Your task to perform on an android device: Open settings on Google Maps Image 0: 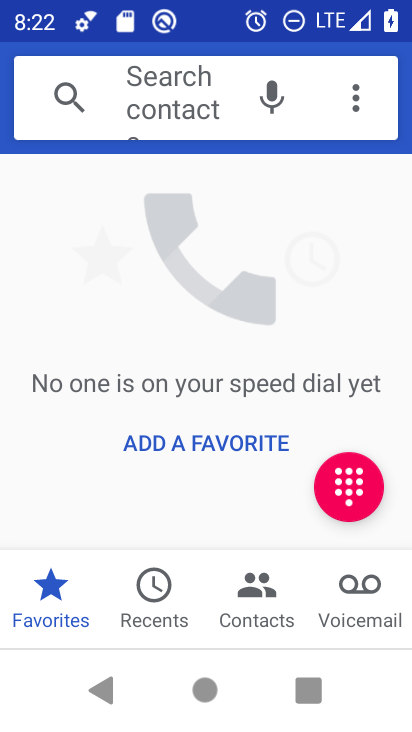
Step 0: press home button
Your task to perform on an android device: Open settings on Google Maps Image 1: 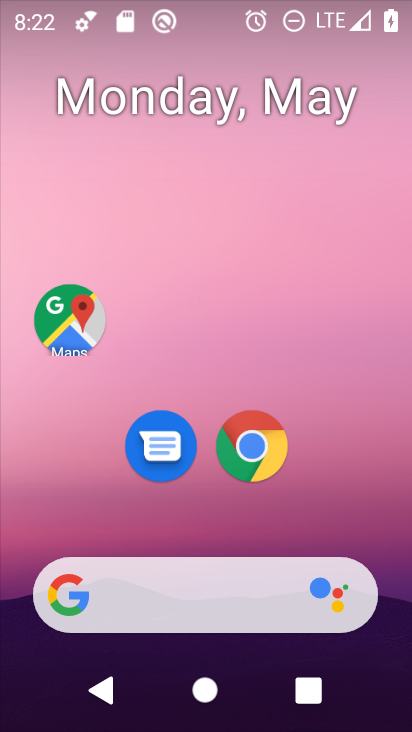
Step 1: click (71, 300)
Your task to perform on an android device: Open settings on Google Maps Image 2: 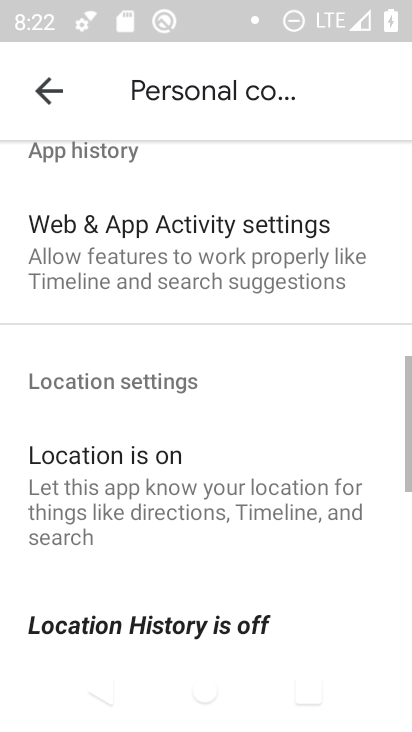
Step 2: click (34, 84)
Your task to perform on an android device: Open settings on Google Maps Image 3: 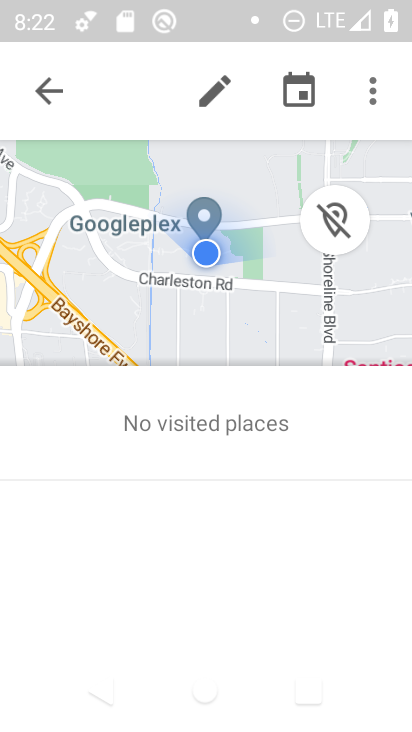
Step 3: click (54, 78)
Your task to perform on an android device: Open settings on Google Maps Image 4: 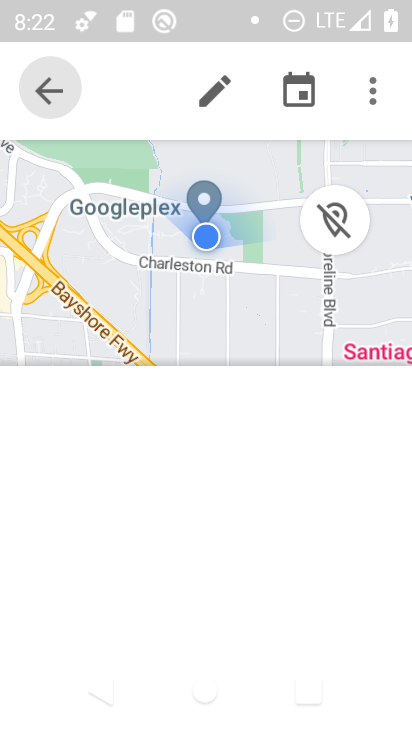
Step 4: click (45, 96)
Your task to perform on an android device: Open settings on Google Maps Image 5: 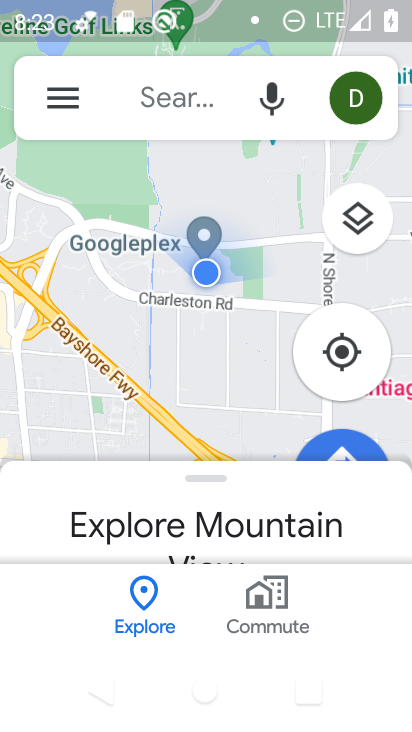
Step 5: click (45, 96)
Your task to perform on an android device: Open settings on Google Maps Image 6: 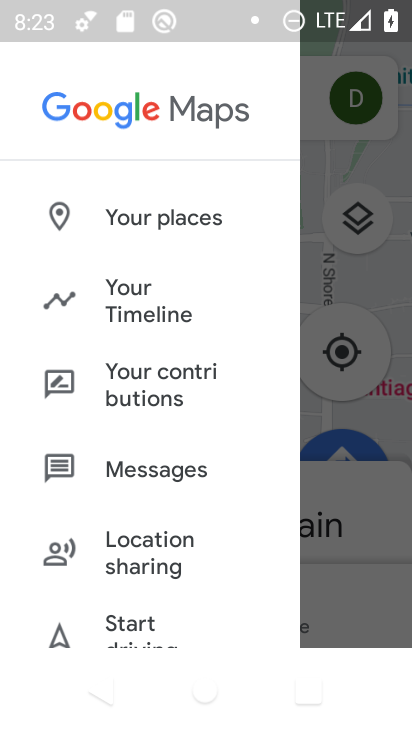
Step 6: drag from (151, 489) to (138, 171)
Your task to perform on an android device: Open settings on Google Maps Image 7: 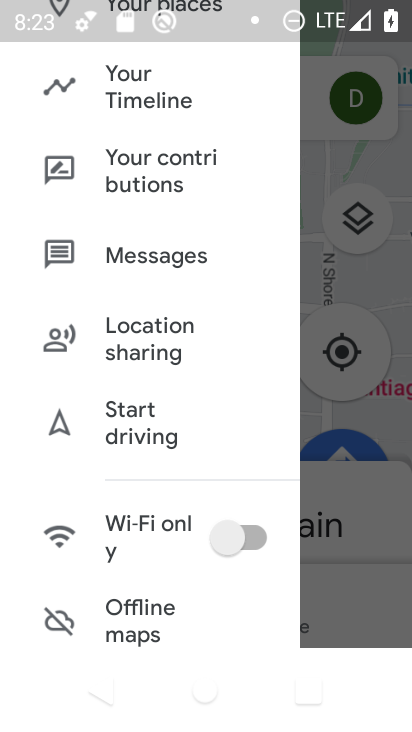
Step 7: drag from (151, 582) to (140, 290)
Your task to perform on an android device: Open settings on Google Maps Image 8: 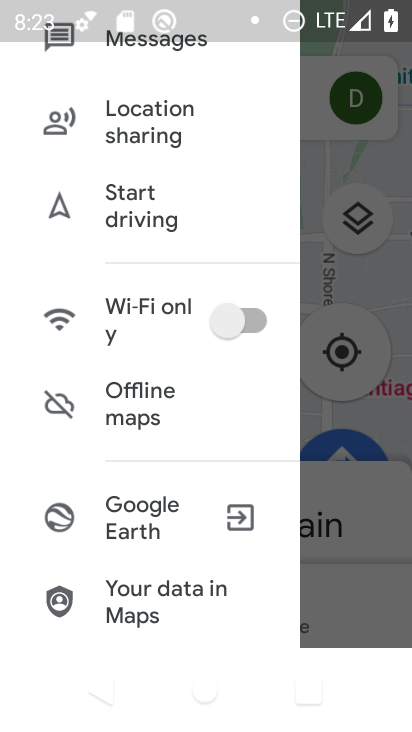
Step 8: drag from (182, 421) to (118, 115)
Your task to perform on an android device: Open settings on Google Maps Image 9: 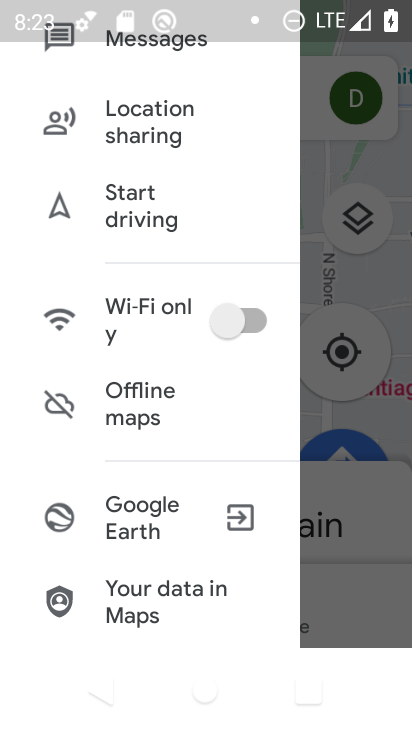
Step 9: drag from (154, 504) to (141, 229)
Your task to perform on an android device: Open settings on Google Maps Image 10: 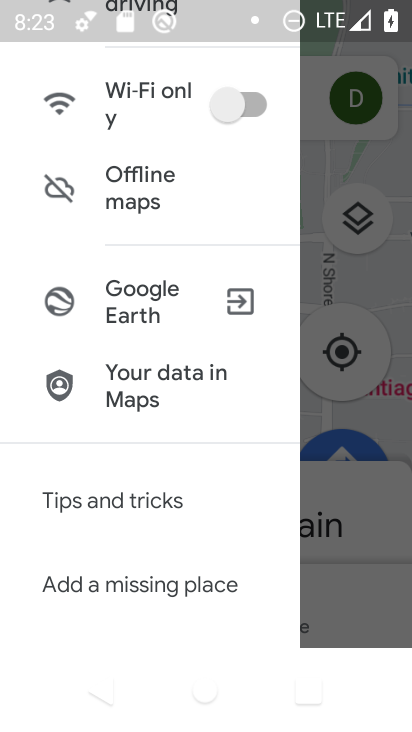
Step 10: drag from (148, 526) to (103, 177)
Your task to perform on an android device: Open settings on Google Maps Image 11: 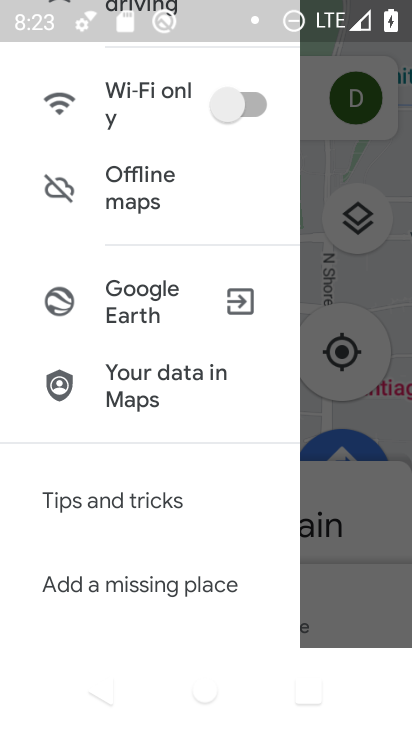
Step 11: drag from (195, 460) to (195, 140)
Your task to perform on an android device: Open settings on Google Maps Image 12: 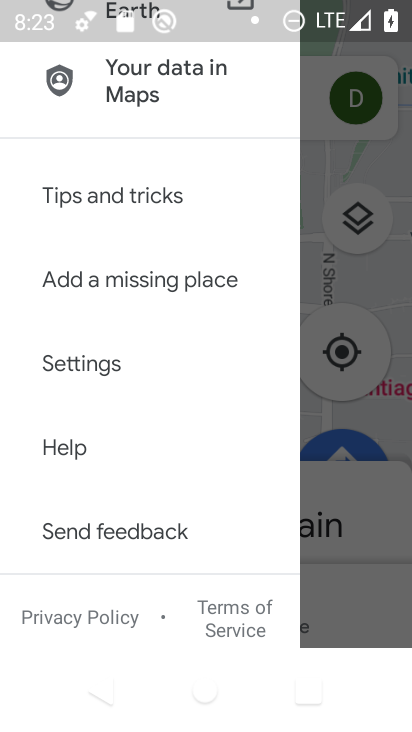
Step 12: click (76, 361)
Your task to perform on an android device: Open settings on Google Maps Image 13: 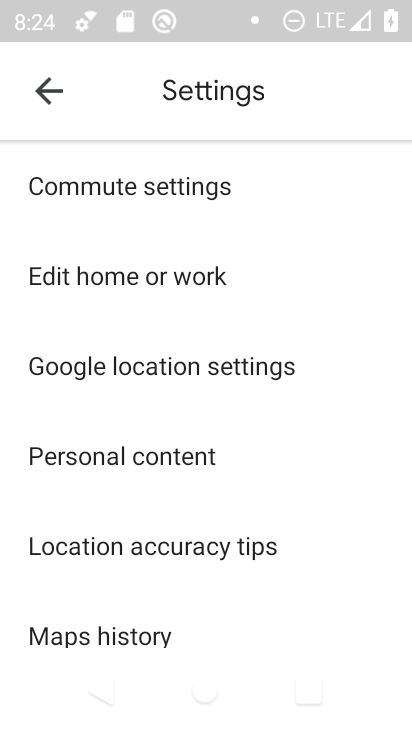
Step 13: task complete